Your task to perform on an android device: change timer sound Image 0: 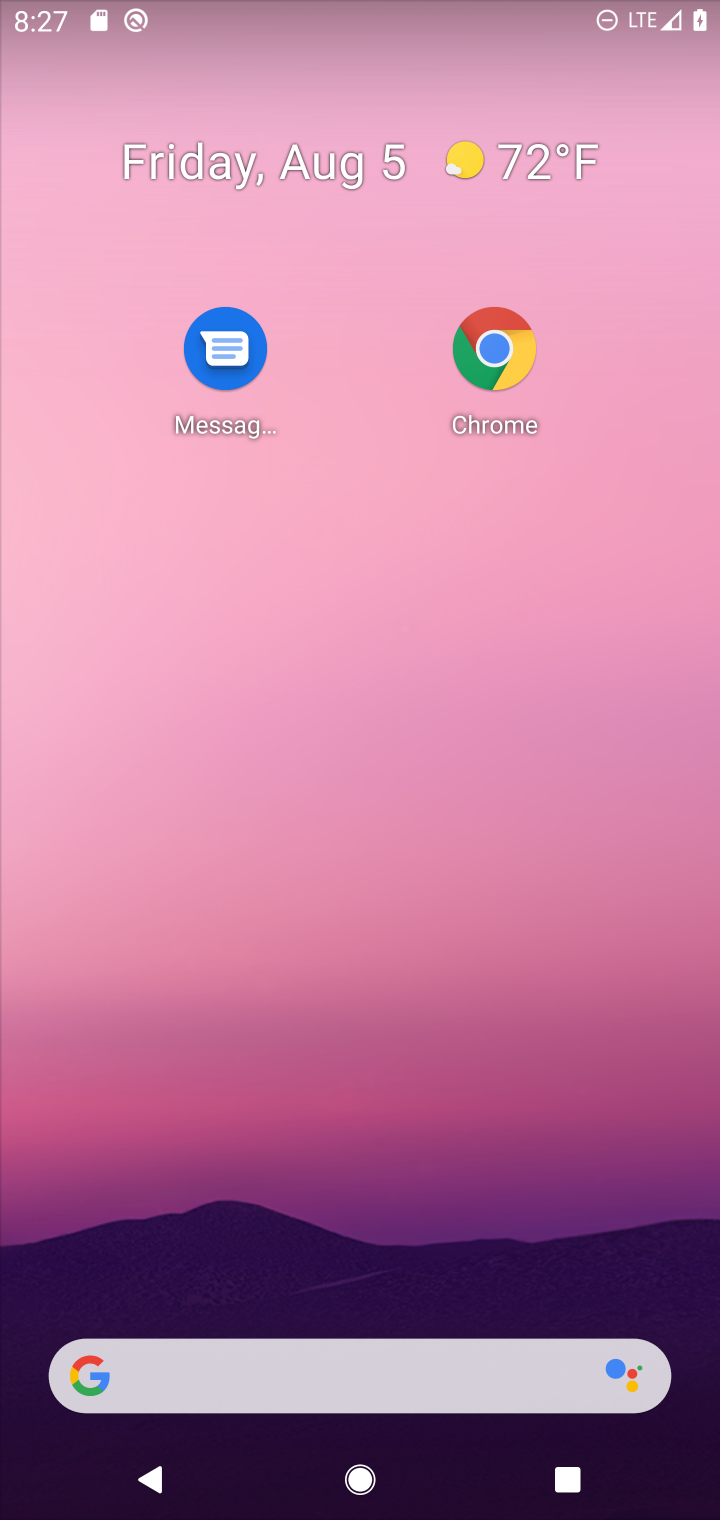
Step 0: press home button
Your task to perform on an android device: change timer sound Image 1: 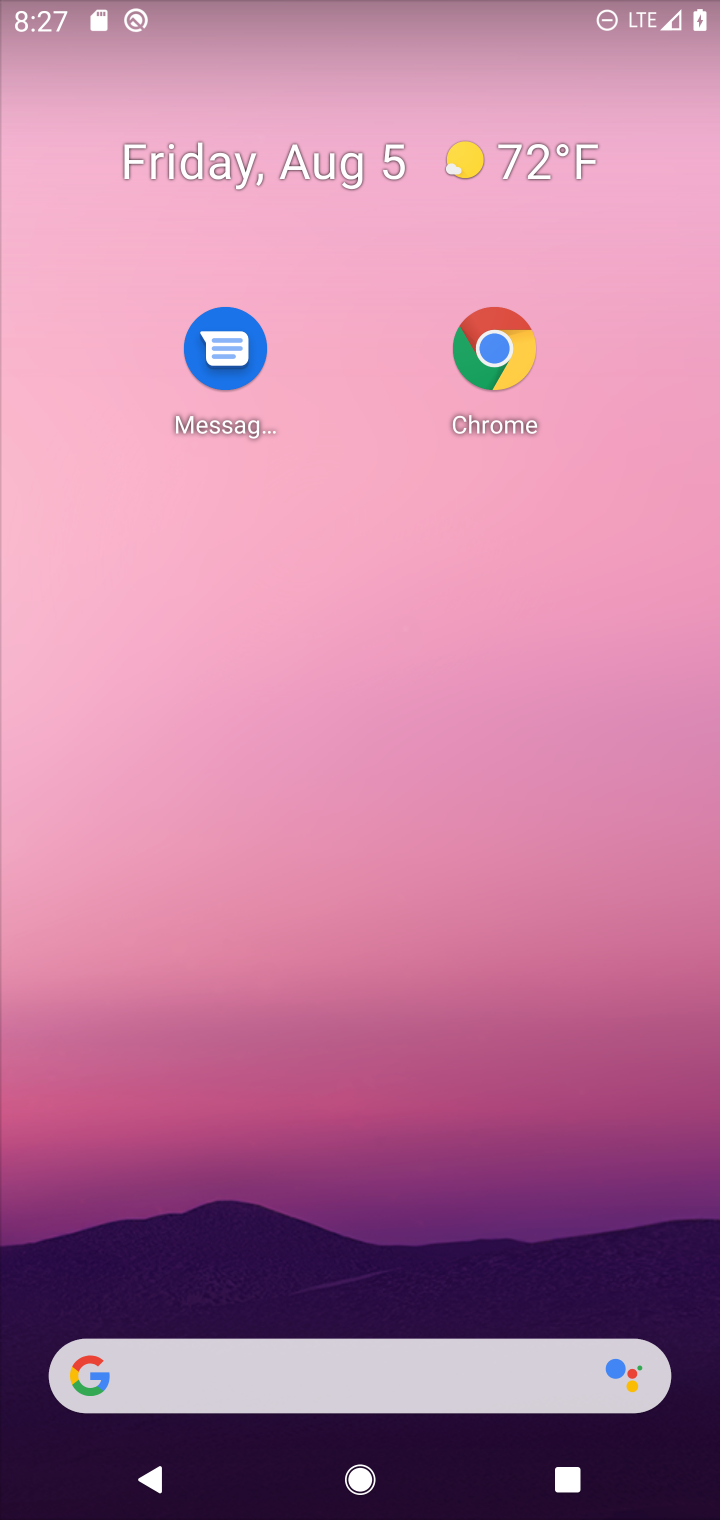
Step 1: drag from (413, 1426) to (323, 316)
Your task to perform on an android device: change timer sound Image 2: 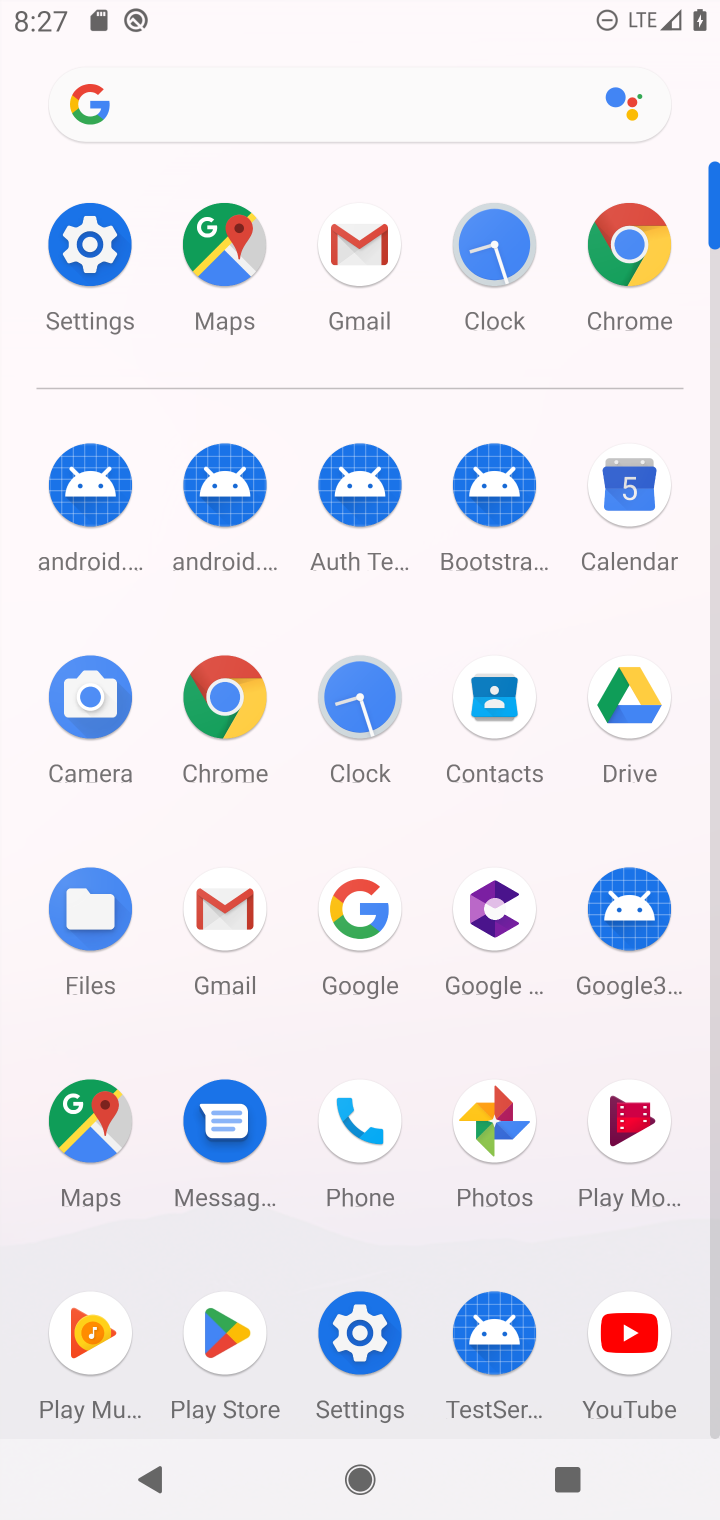
Step 2: click (348, 1337)
Your task to perform on an android device: change timer sound Image 3: 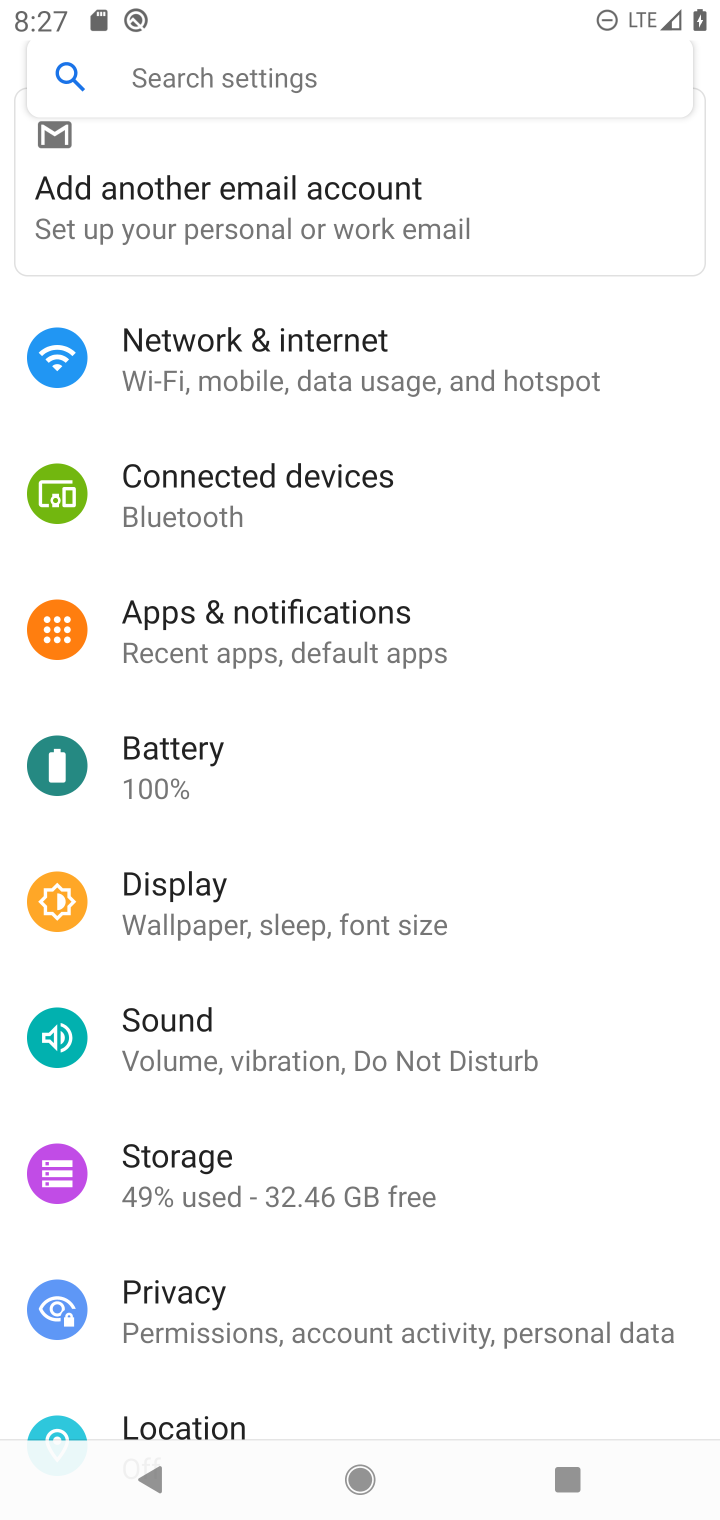
Step 3: click (249, 1039)
Your task to perform on an android device: change timer sound Image 4: 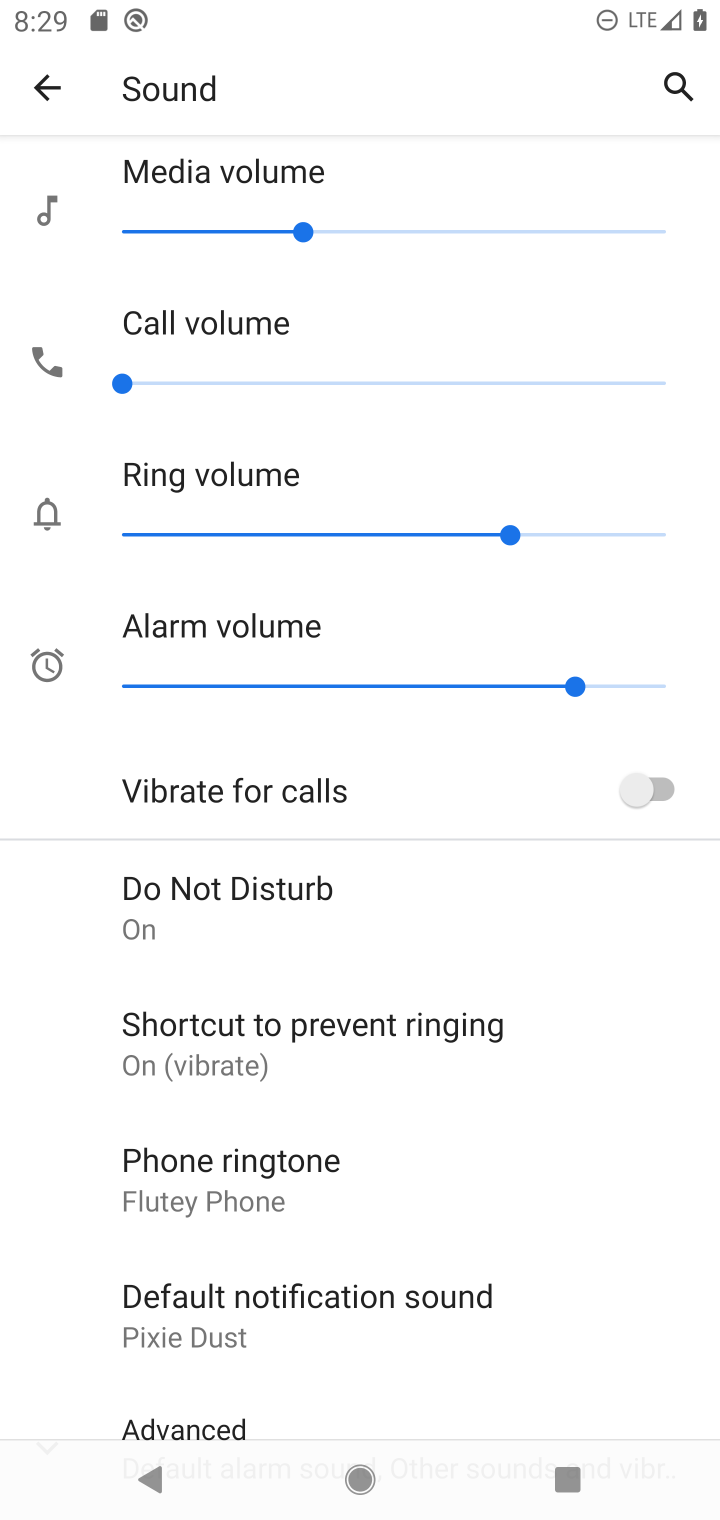
Step 4: task complete